Your task to perform on an android device: turn off translation in the chrome app Image 0: 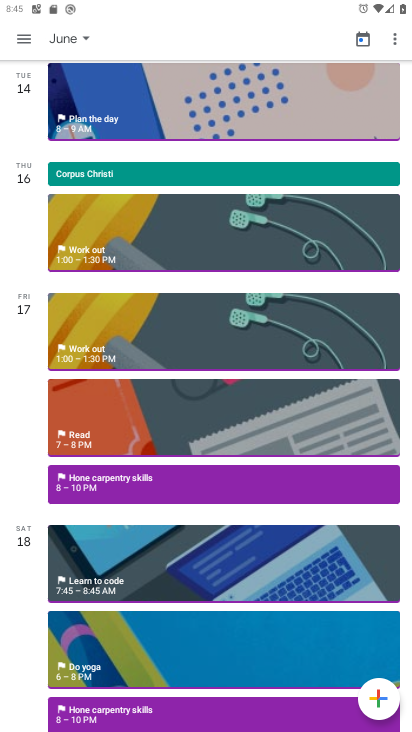
Step 0: press home button
Your task to perform on an android device: turn off translation in the chrome app Image 1: 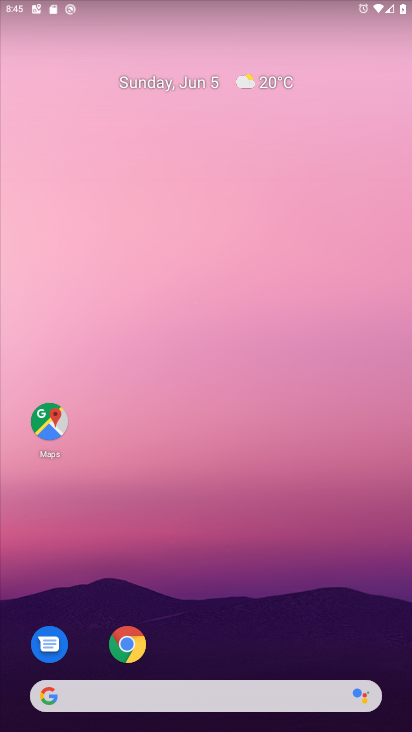
Step 1: drag from (286, 600) to (326, 107)
Your task to perform on an android device: turn off translation in the chrome app Image 2: 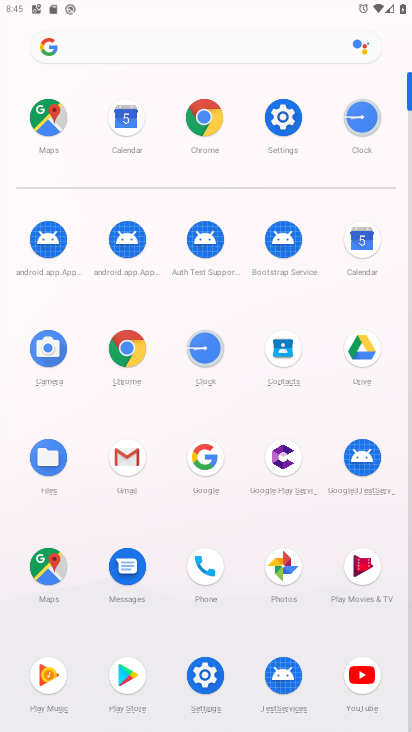
Step 2: click (138, 366)
Your task to perform on an android device: turn off translation in the chrome app Image 3: 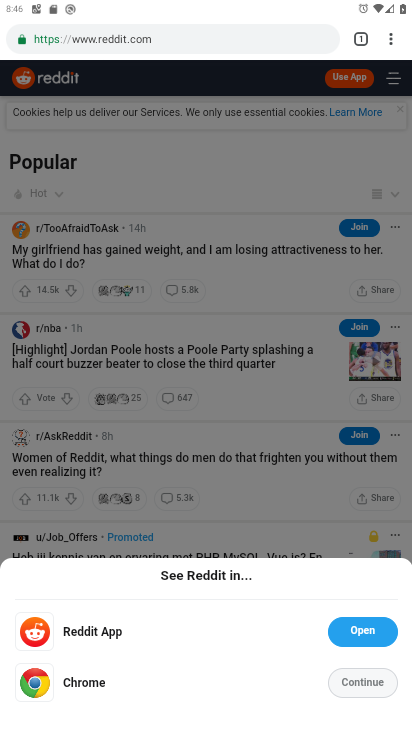
Step 3: drag from (396, 33) to (285, 477)
Your task to perform on an android device: turn off translation in the chrome app Image 4: 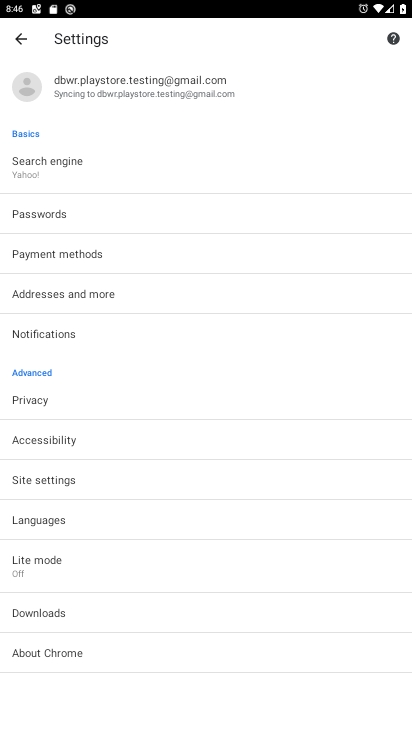
Step 4: click (104, 518)
Your task to perform on an android device: turn off translation in the chrome app Image 5: 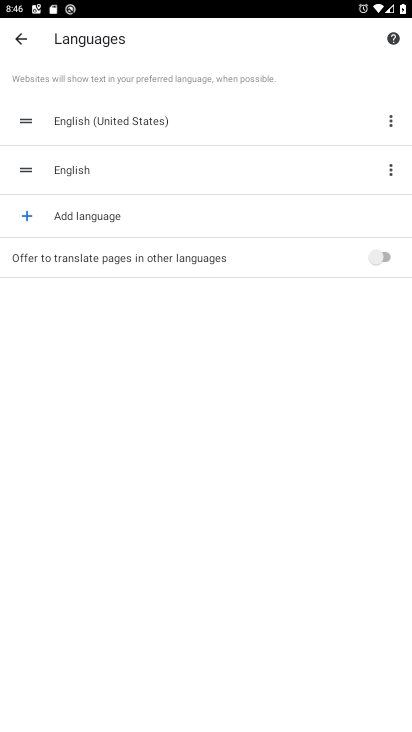
Step 5: task complete